Your task to perform on an android device: see sites visited before in the chrome app Image 0: 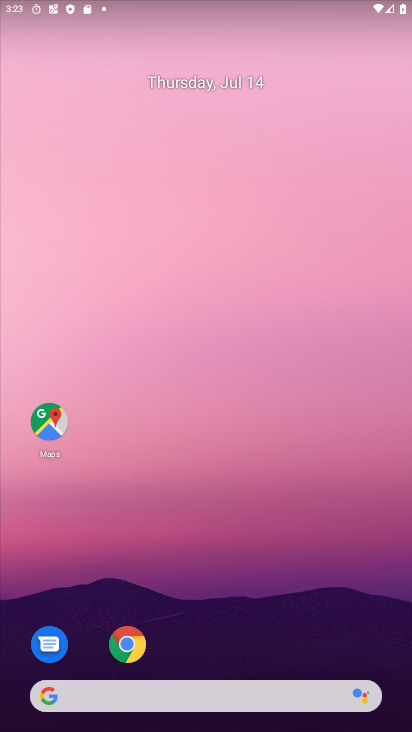
Step 0: click (16, 711)
Your task to perform on an android device: see sites visited before in the chrome app Image 1: 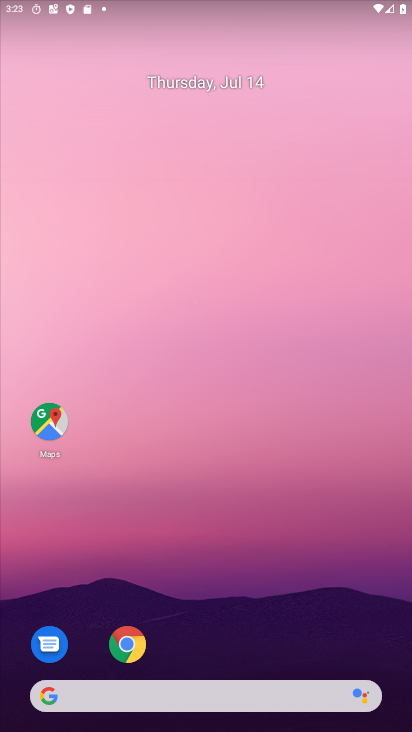
Step 1: click (127, 650)
Your task to perform on an android device: see sites visited before in the chrome app Image 2: 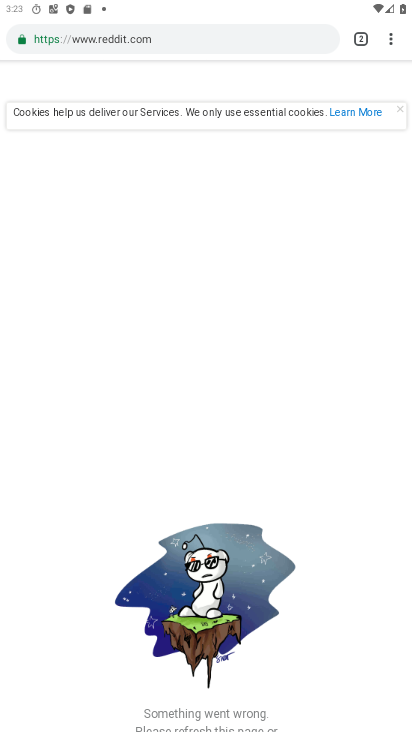
Step 2: click (384, 37)
Your task to perform on an android device: see sites visited before in the chrome app Image 3: 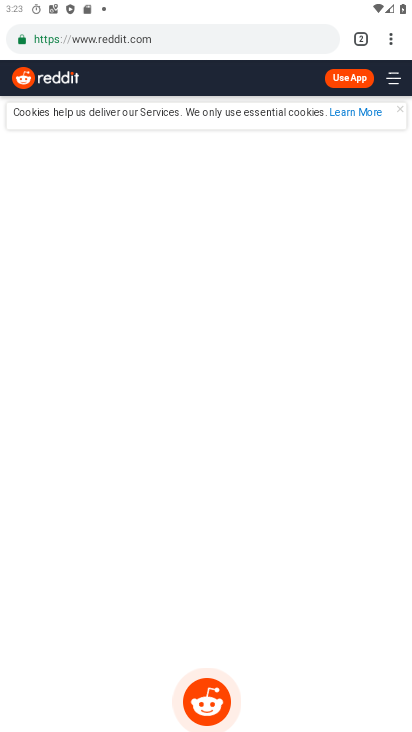
Step 3: click (385, 37)
Your task to perform on an android device: see sites visited before in the chrome app Image 4: 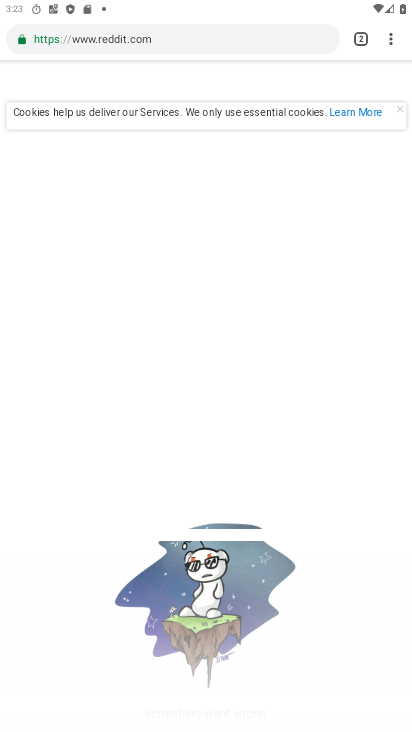
Step 4: click (387, 38)
Your task to perform on an android device: see sites visited before in the chrome app Image 5: 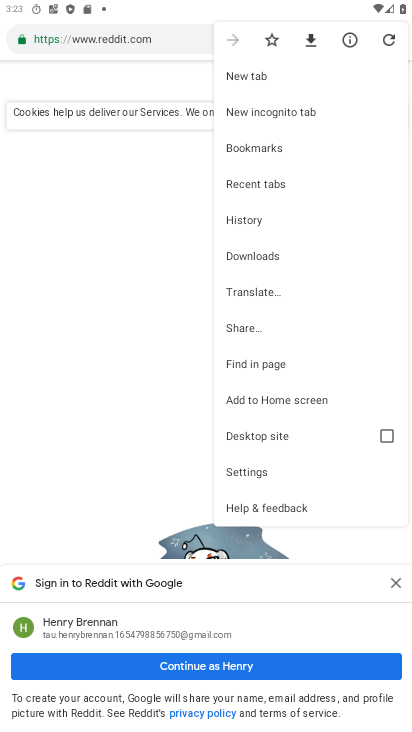
Step 5: click (255, 176)
Your task to perform on an android device: see sites visited before in the chrome app Image 6: 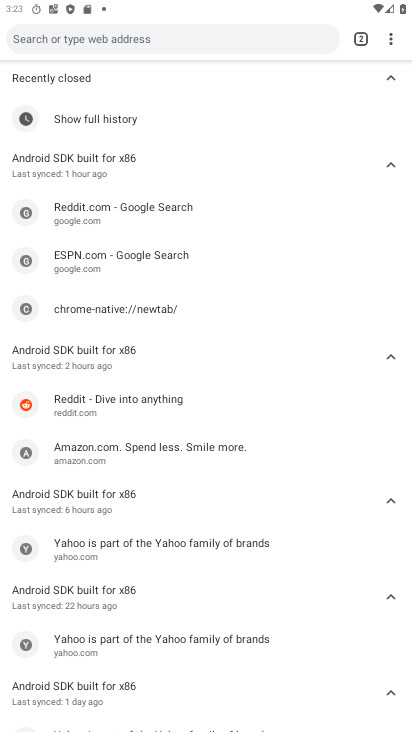
Step 6: task complete